Your task to perform on an android device: open a bookmark in the chrome app Image 0: 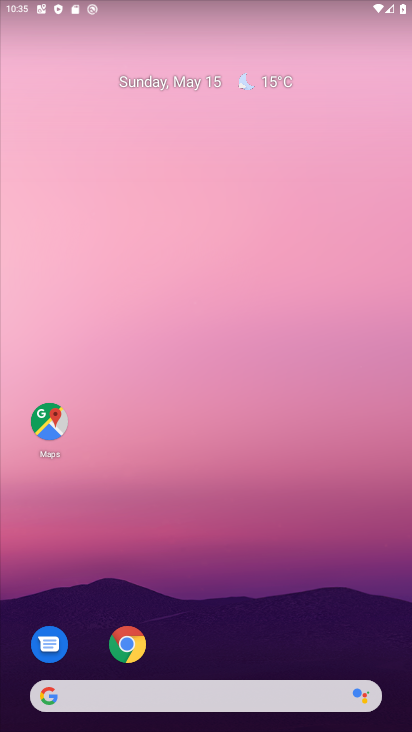
Step 0: click (116, 650)
Your task to perform on an android device: open a bookmark in the chrome app Image 1: 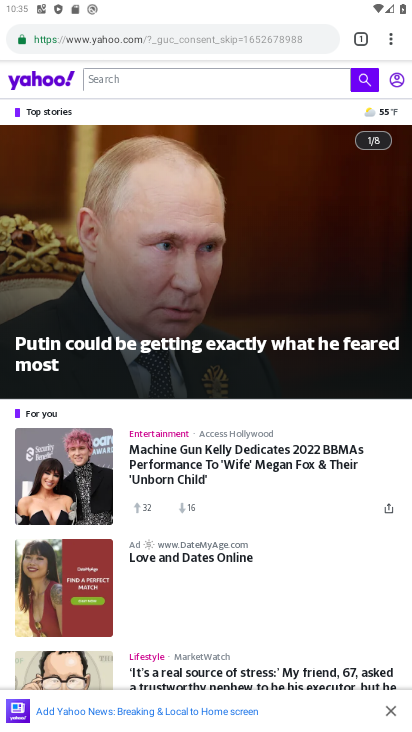
Step 1: click (390, 33)
Your task to perform on an android device: open a bookmark in the chrome app Image 2: 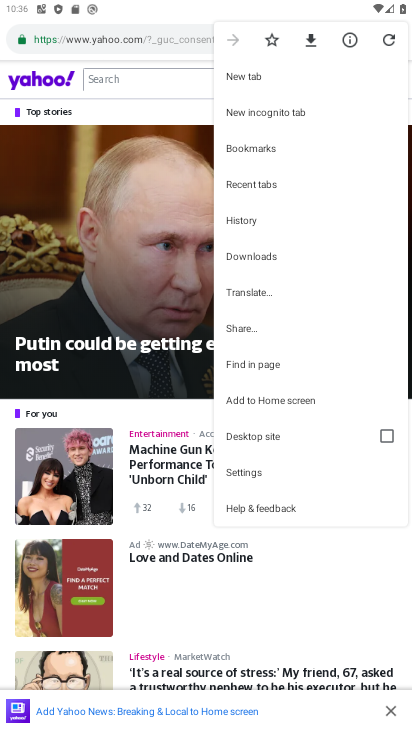
Step 2: click (256, 140)
Your task to perform on an android device: open a bookmark in the chrome app Image 3: 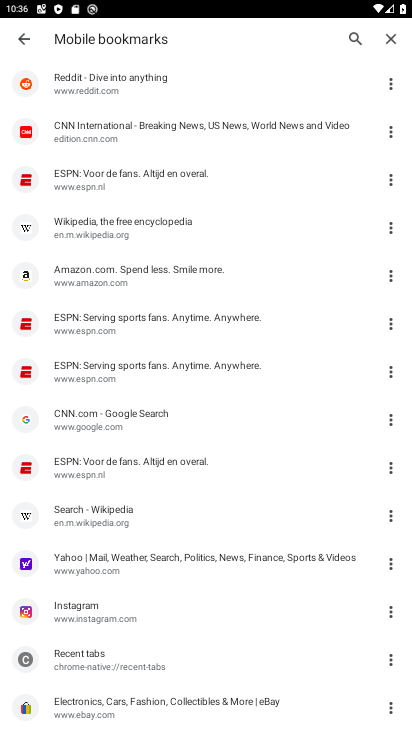
Step 3: click (185, 564)
Your task to perform on an android device: open a bookmark in the chrome app Image 4: 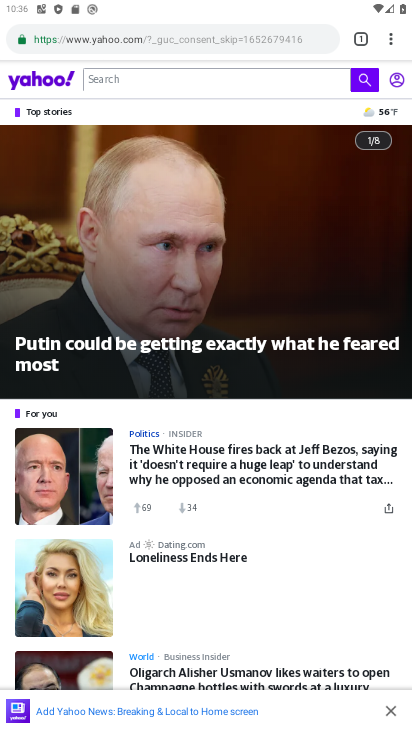
Step 4: task complete